Your task to perform on an android device: Go to CNN.com Image 0: 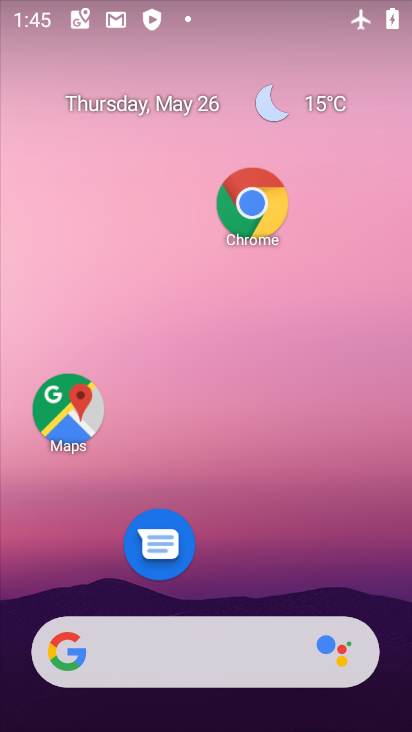
Step 0: click (181, 646)
Your task to perform on an android device: Go to CNN.com Image 1: 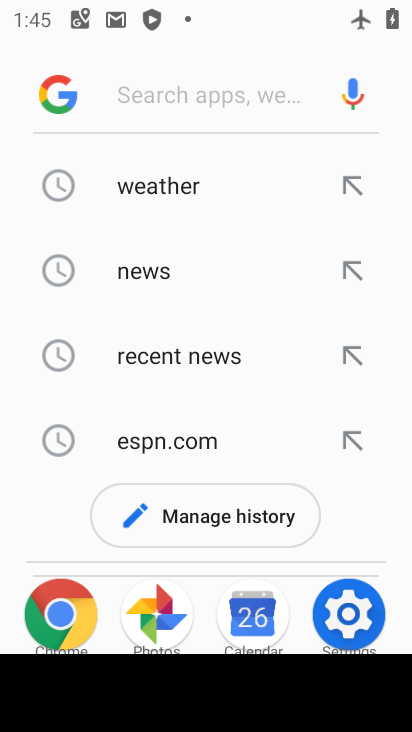
Step 1: type "cnn.com"
Your task to perform on an android device: Go to CNN.com Image 2: 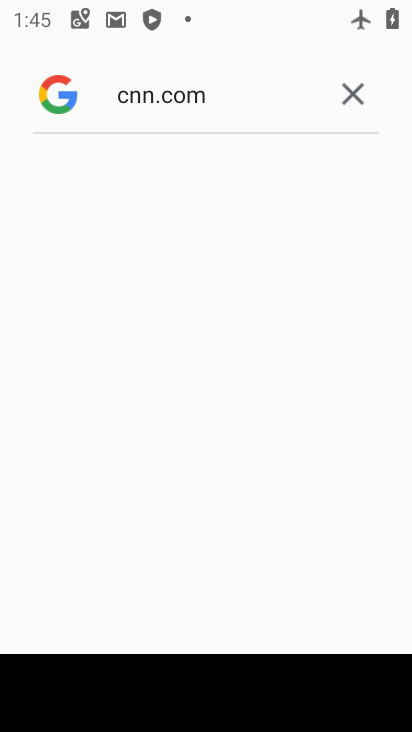
Step 2: task complete